Your task to perform on an android device: toggle data saver in the chrome app Image 0: 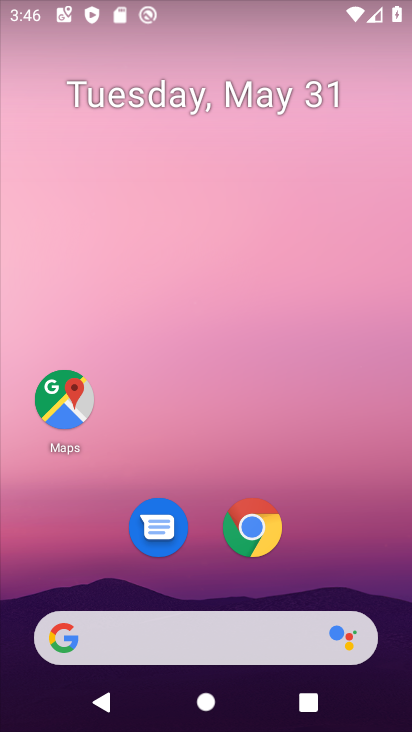
Step 0: click (256, 537)
Your task to perform on an android device: toggle data saver in the chrome app Image 1: 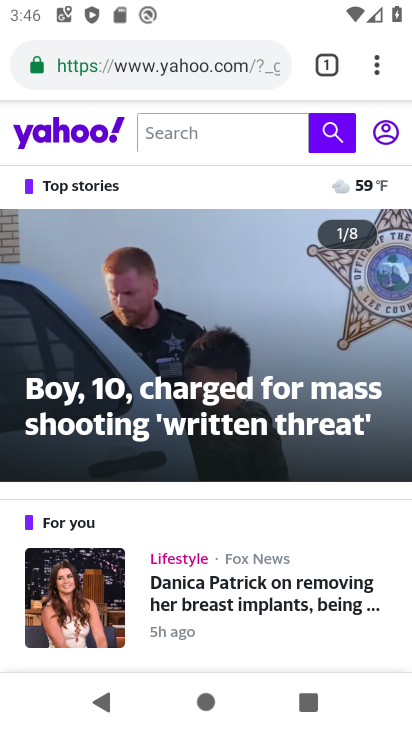
Step 1: click (382, 59)
Your task to perform on an android device: toggle data saver in the chrome app Image 2: 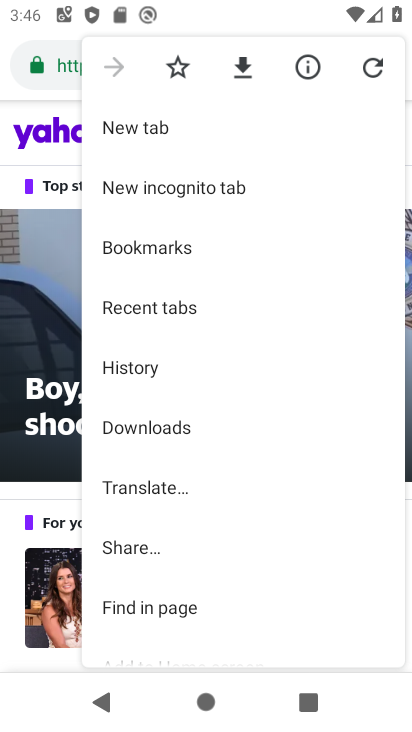
Step 2: drag from (168, 554) to (140, 206)
Your task to perform on an android device: toggle data saver in the chrome app Image 3: 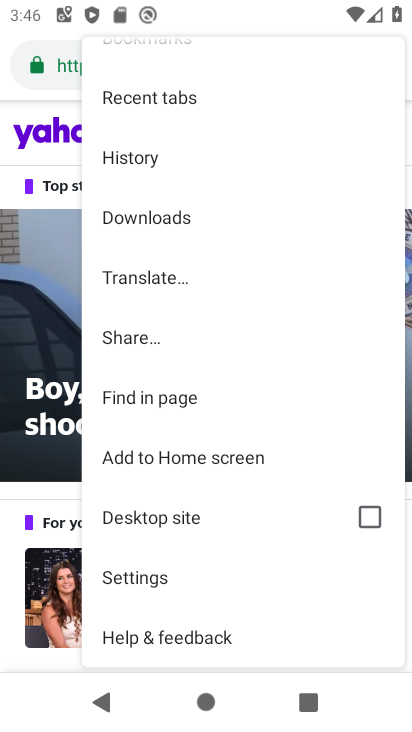
Step 3: click (149, 585)
Your task to perform on an android device: toggle data saver in the chrome app Image 4: 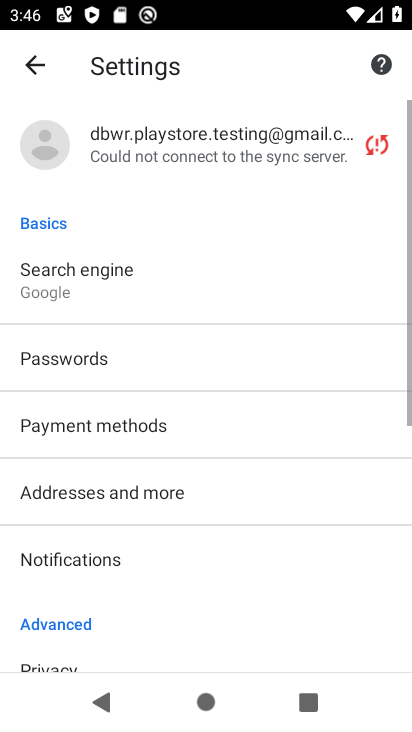
Step 4: drag from (200, 647) to (153, 134)
Your task to perform on an android device: toggle data saver in the chrome app Image 5: 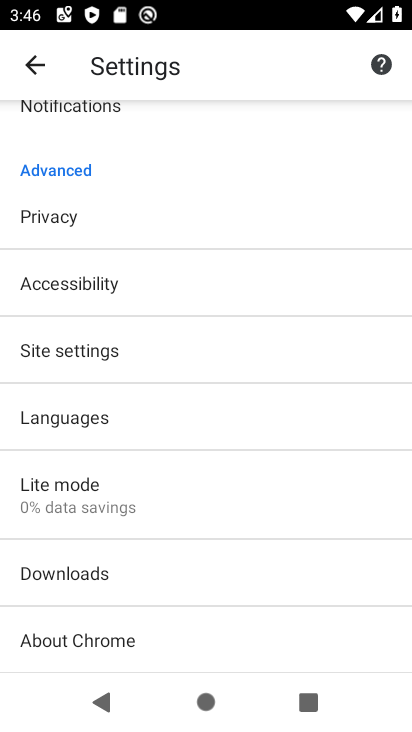
Step 5: click (125, 515)
Your task to perform on an android device: toggle data saver in the chrome app Image 6: 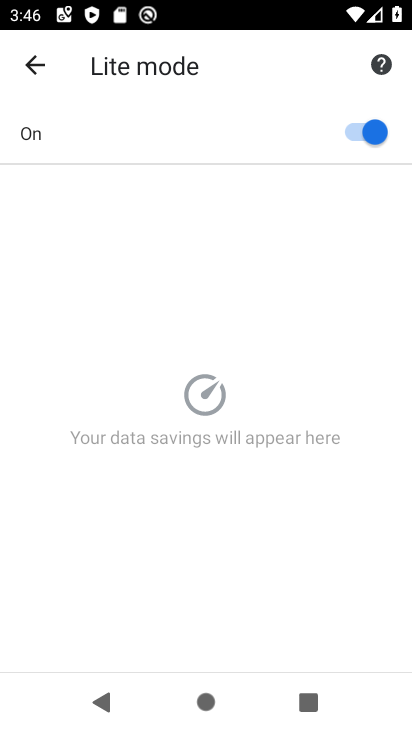
Step 6: click (361, 139)
Your task to perform on an android device: toggle data saver in the chrome app Image 7: 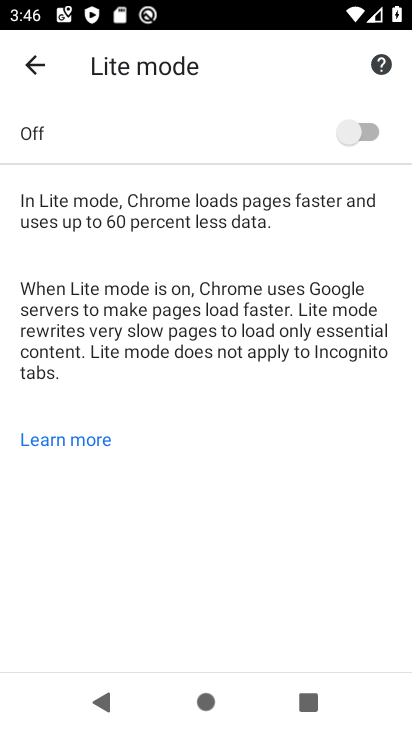
Step 7: task complete